Your task to perform on an android device: toggle airplane mode Image 0: 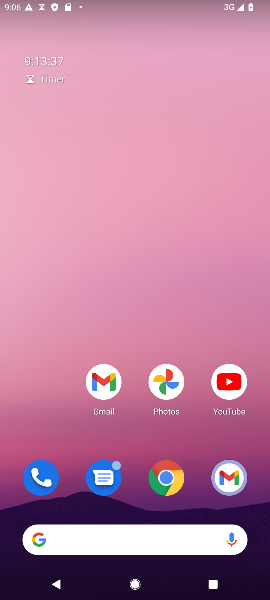
Step 0: drag from (192, 366) to (157, 25)
Your task to perform on an android device: toggle airplane mode Image 1: 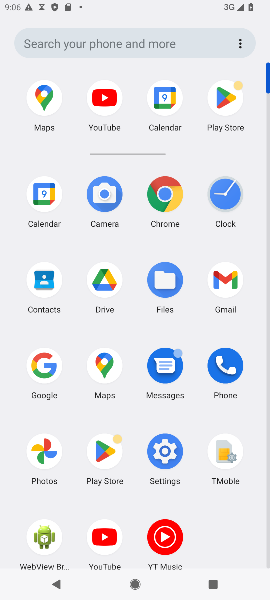
Step 1: click (164, 456)
Your task to perform on an android device: toggle airplane mode Image 2: 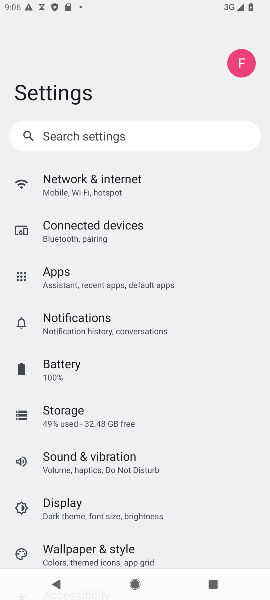
Step 2: drag from (162, 527) to (154, 97)
Your task to perform on an android device: toggle airplane mode Image 3: 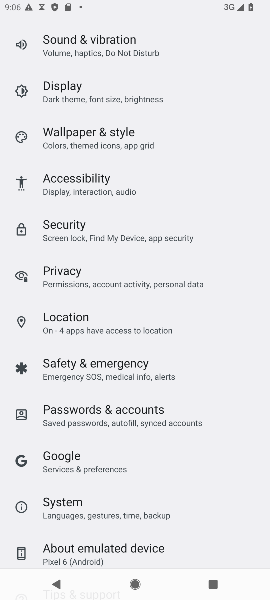
Step 3: drag from (154, 97) to (117, 547)
Your task to perform on an android device: toggle airplane mode Image 4: 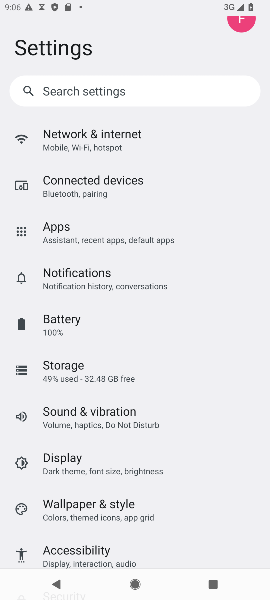
Step 4: click (105, 152)
Your task to perform on an android device: toggle airplane mode Image 5: 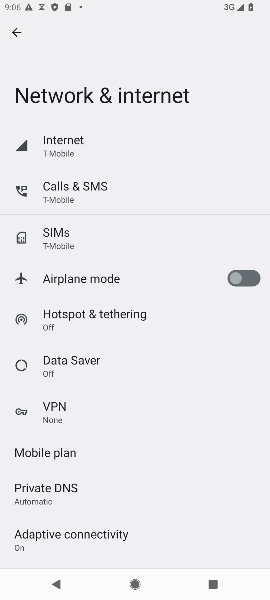
Step 5: click (241, 279)
Your task to perform on an android device: toggle airplane mode Image 6: 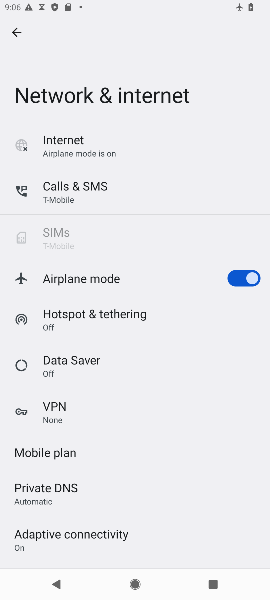
Step 6: task complete